Your task to perform on an android device: How much does the LG TV cost? Image 0: 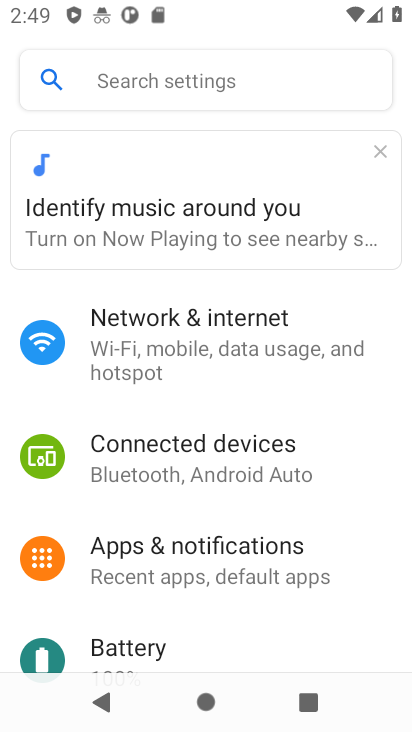
Step 0: press home button
Your task to perform on an android device: How much does the LG TV cost? Image 1: 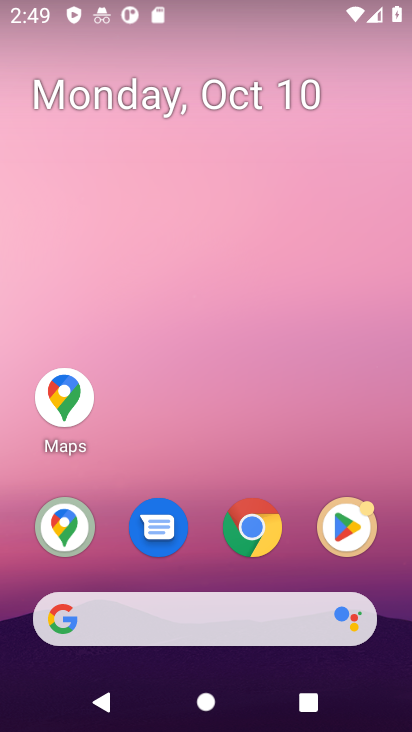
Step 1: click (252, 524)
Your task to perform on an android device: How much does the LG TV cost? Image 2: 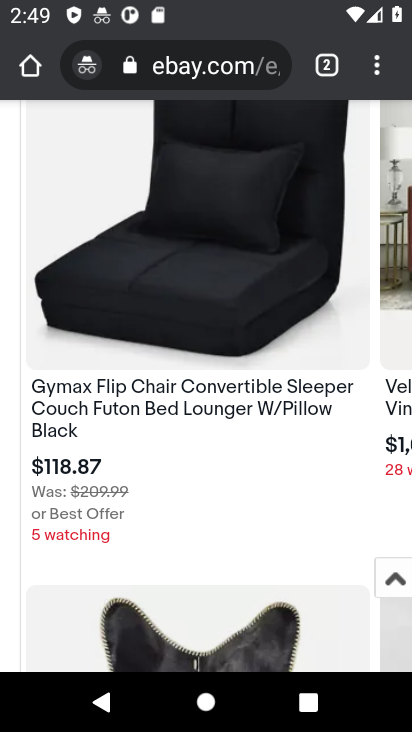
Step 2: click (180, 63)
Your task to perform on an android device: How much does the LG TV cost? Image 3: 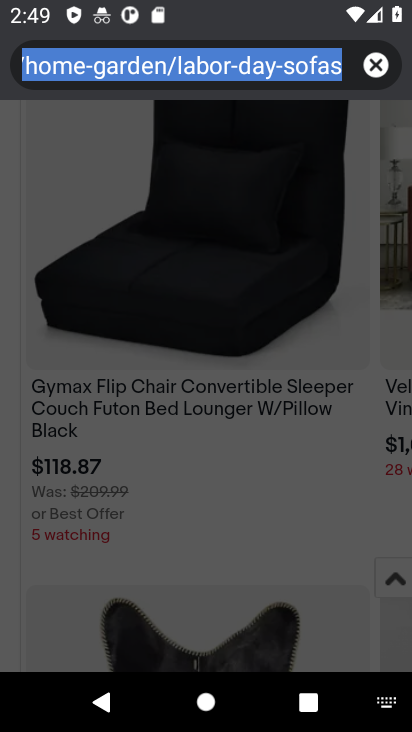
Step 3: click (377, 66)
Your task to perform on an android device: How much does the LG TV cost? Image 4: 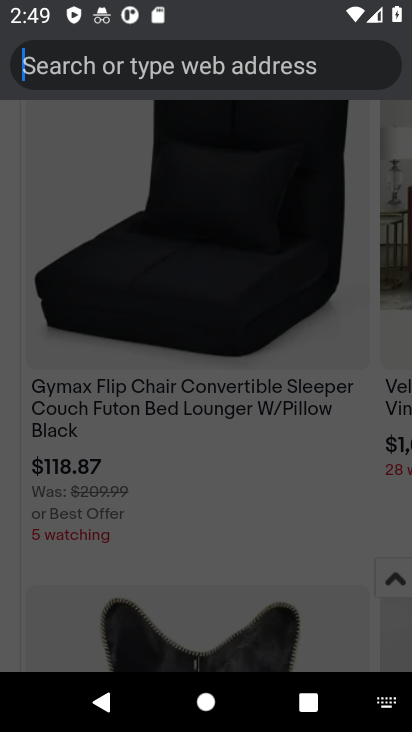
Step 4: type "How much does the LG TV cost"
Your task to perform on an android device: How much does the LG TV cost? Image 5: 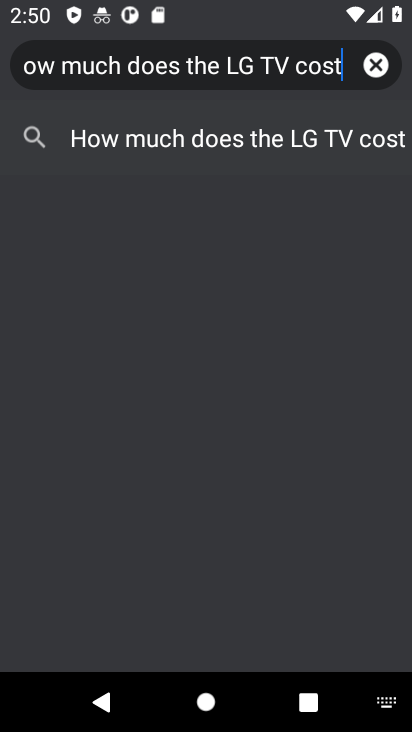
Step 5: click (300, 140)
Your task to perform on an android device: How much does the LG TV cost? Image 6: 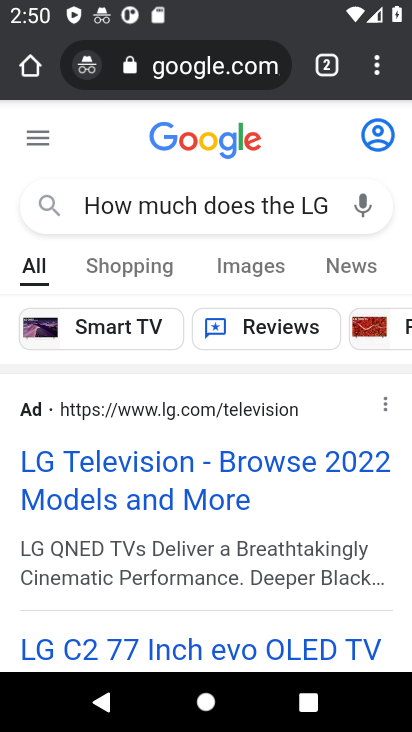
Step 6: task complete